Your task to perform on an android device: Open Android settings Image 0: 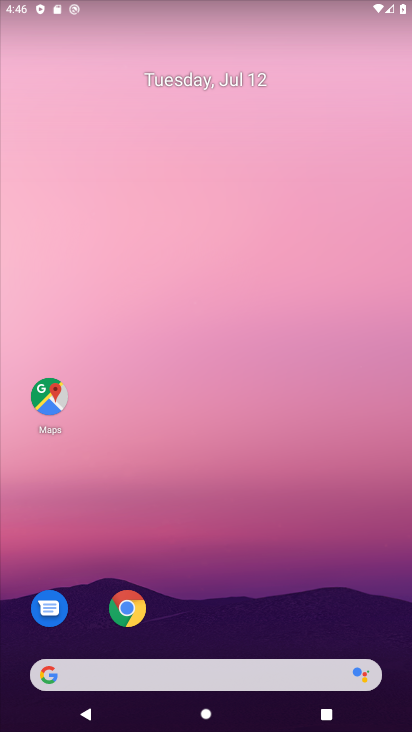
Step 0: drag from (191, 8) to (234, 609)
Your task to perform on an android device: Open Android settings Image 1: 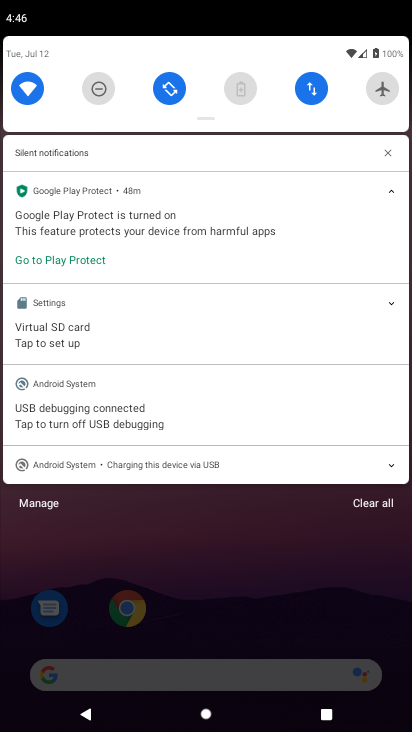
Step 1: drag from (202, 64) to (260, 643)
Your task to perform on an android device: Open Android settings Image 2: 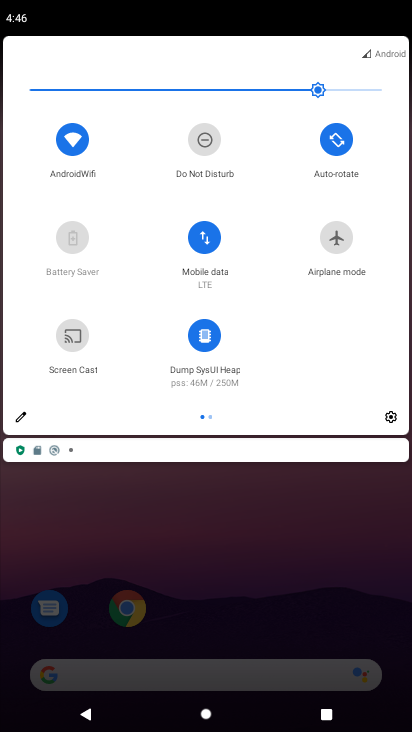
Step 2: click (393, 418)
Your task to perform on an android device: Open Android settings Image 3: 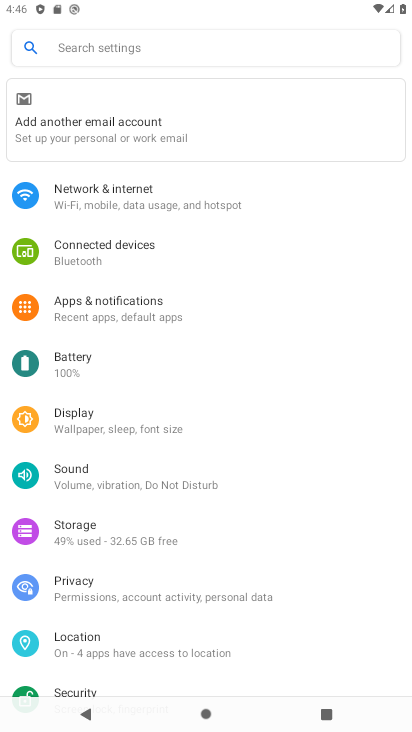
Step 3: task complete